Your task to perform on an android device: Open Yahoo.com Image 0: 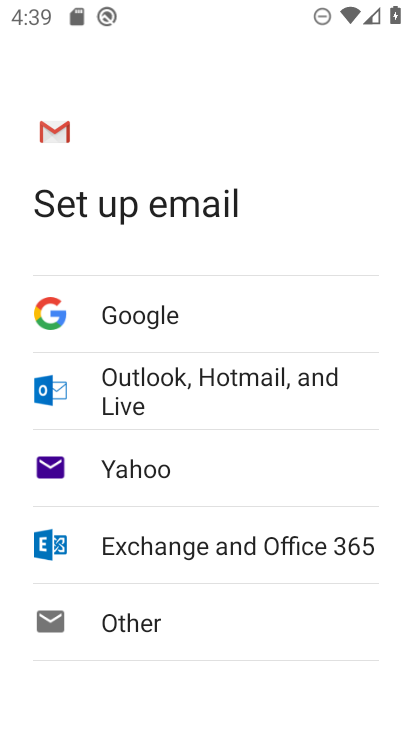
Step 0: press home button
Your task to perform on an android device: Open Yahoo.com Image 1: 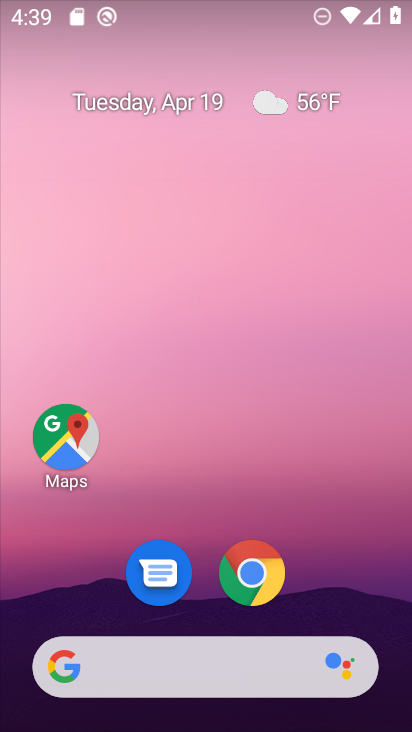
Step 1: click (260, 577)
Your task to perform on an android device: Open Yahoo.com Image 2: 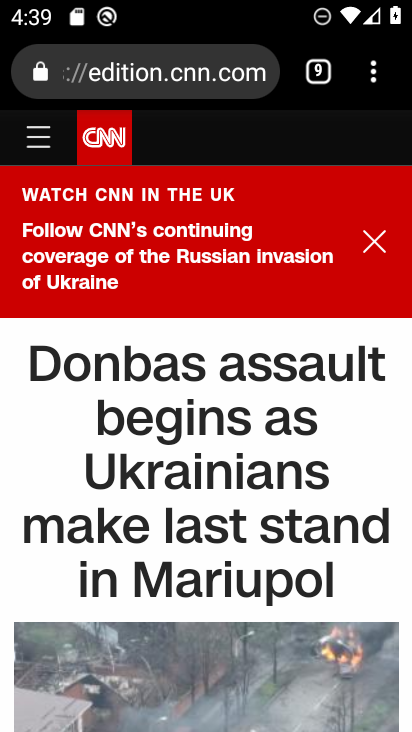
Step 2: click (377, 76)
Your task to perform on an android device: Open Yahoo.com Image 3: 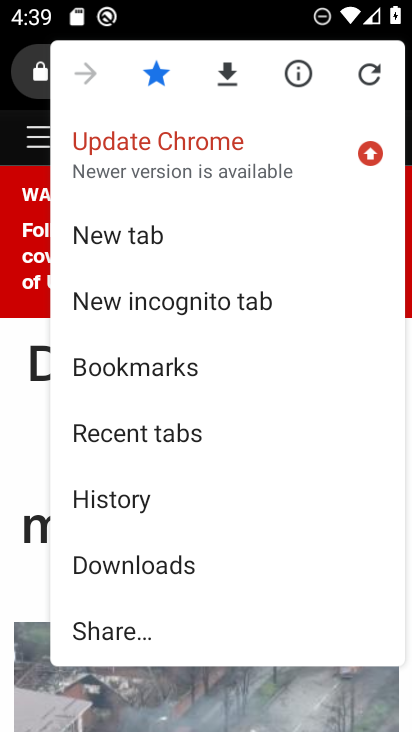
Step 3: click (137, 232)
Your task to perform on an android device: Open Yahoo.com Image 4: 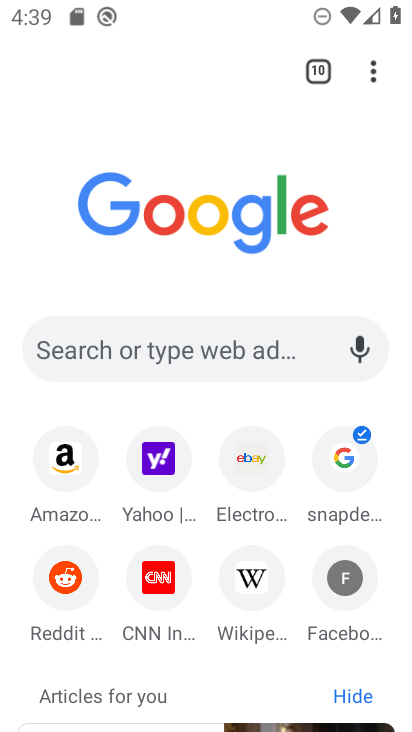
Step 4: click (158, 454)
Your task to perform on an android device: Open Yahoo.com Image 5: 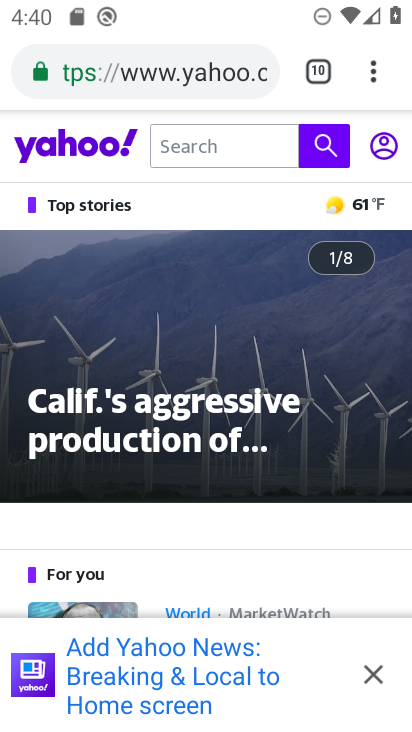
Step 5: task complete